Your task to perform on an android device: Google the capital of Canada Image 0: 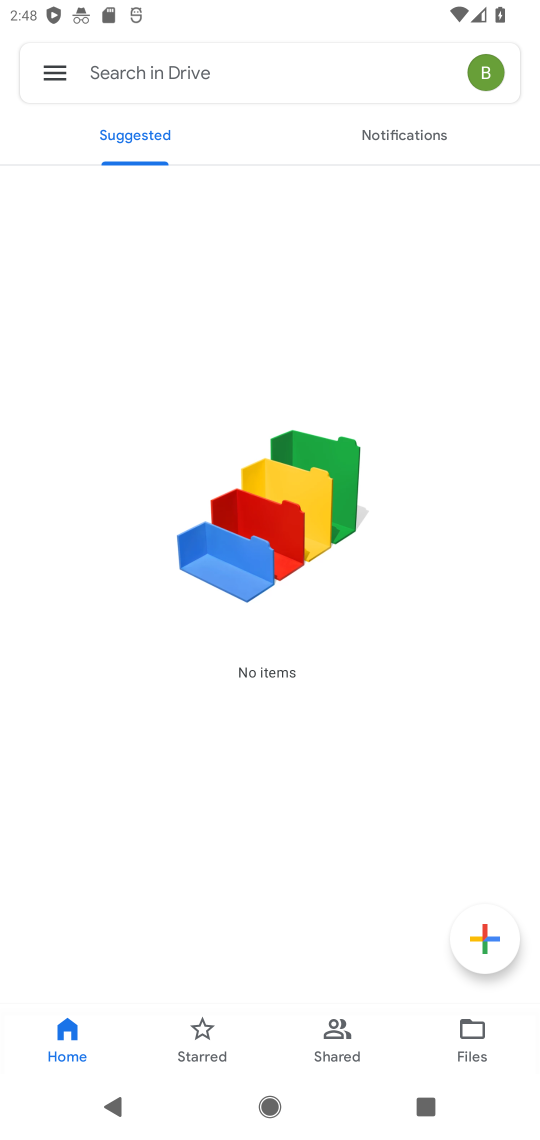
Step 0: press home button
Your task to perform on an android device: Google the capital of Canada Image 1: 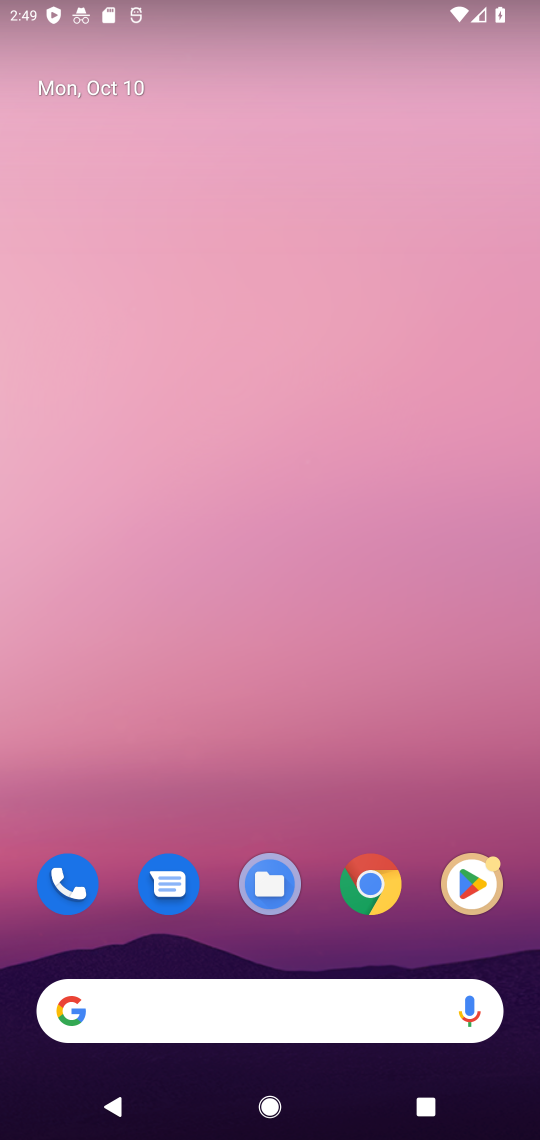
Step 1: click (118, 1005)
Your task to perform on an android device: Google the capital of Canada Image 2: 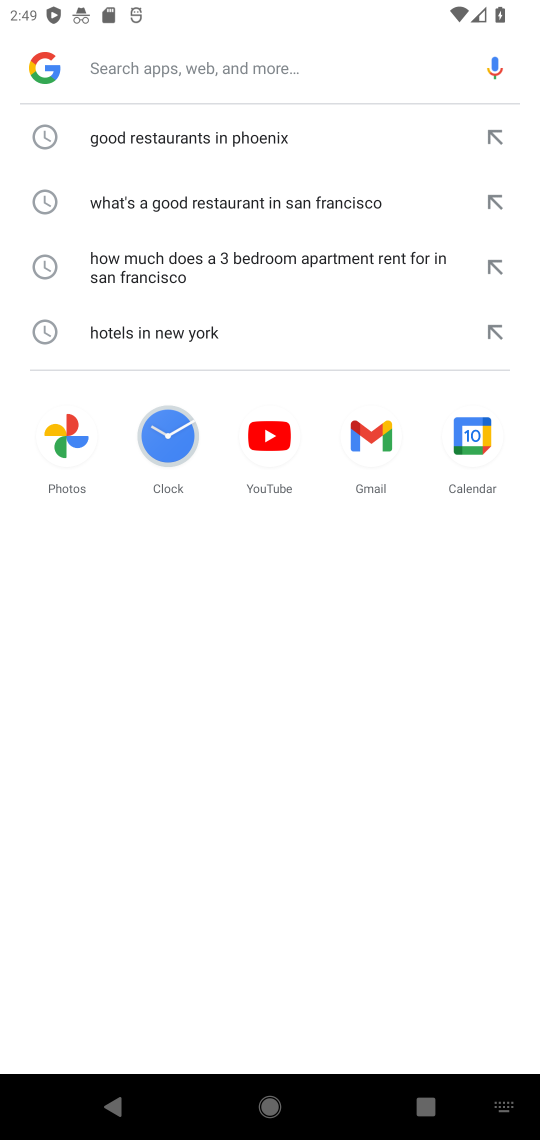
Step 2: type " capital of Canada"
Your task to perform on an android device: Google the capital of Canada Image 3: 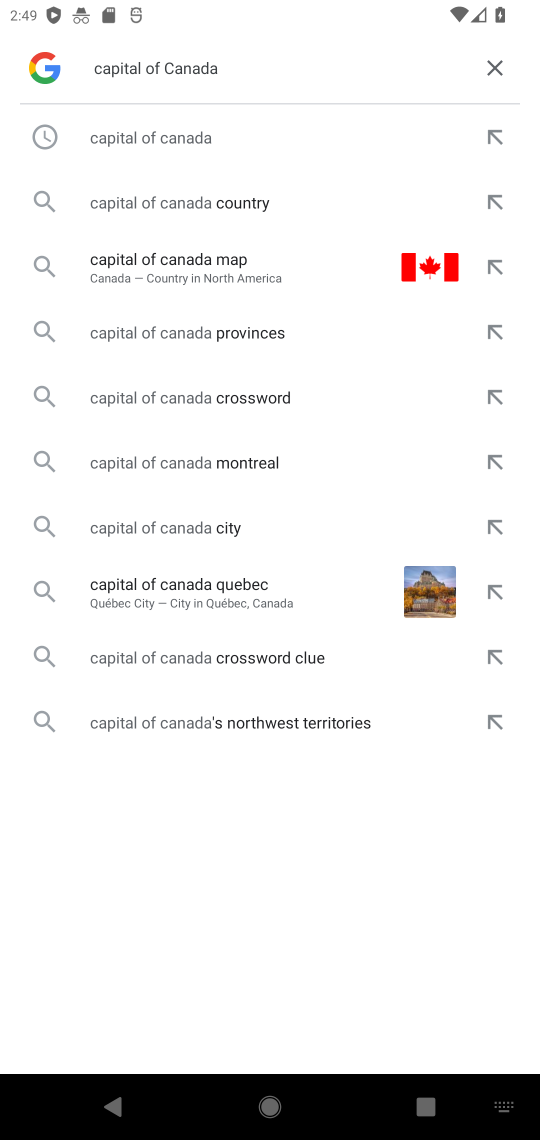
Step 3: click (141, 132)
Your task to perform on an android device: Google the capital of Canada Image 4: 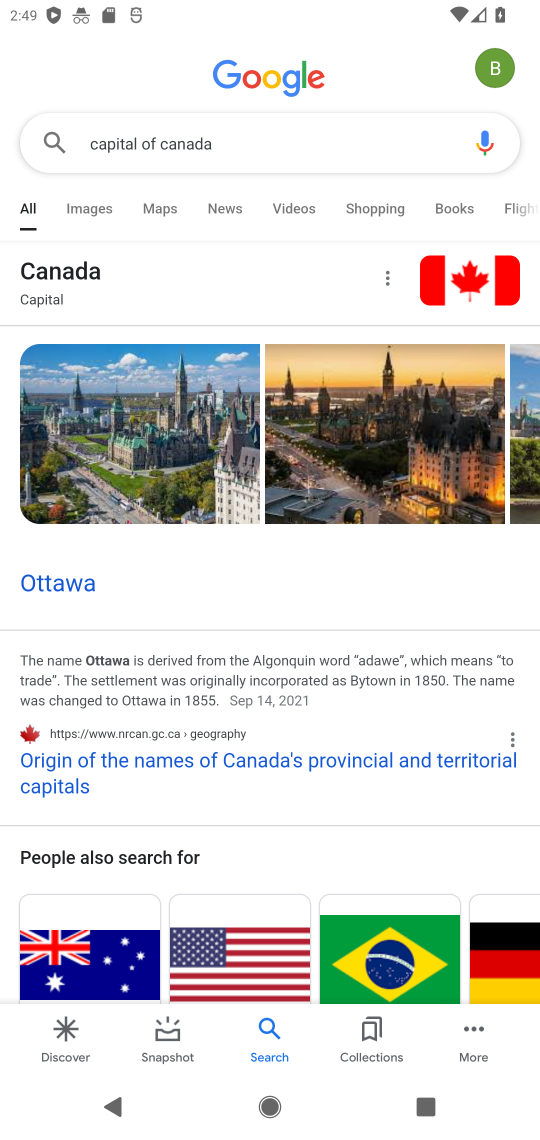
Step 4: task complete